Your task to perform on an android device: open a bookmark in the chrome app Image 0: 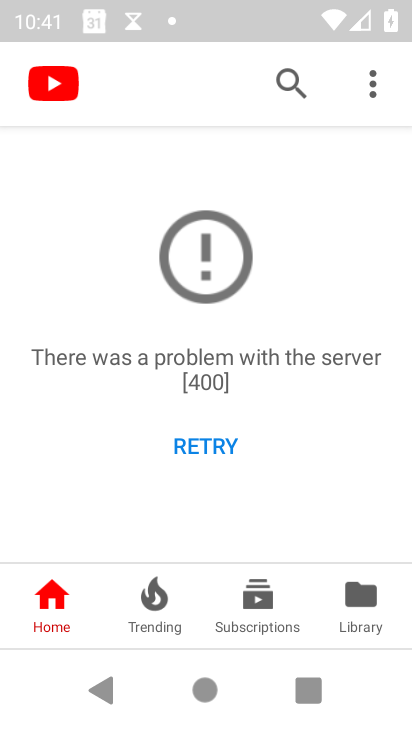
Step 0: press home button
Your task to perform on an android device: open a bookmark in the chrome app Image 1: 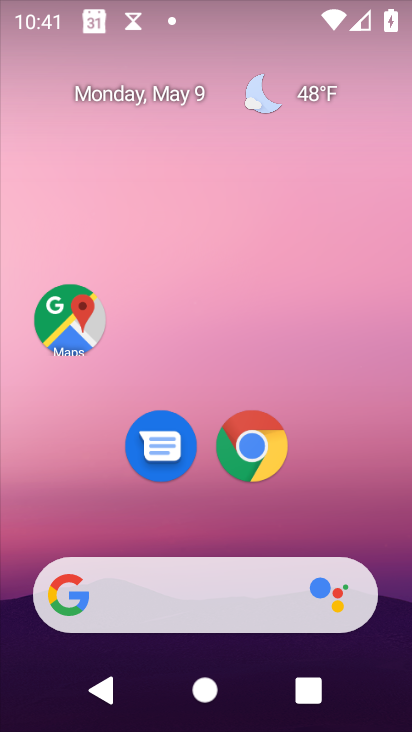
Step 1: click (245, 456)
Your task to perform on an android device: open a bookmark in the chrome app Image 2: 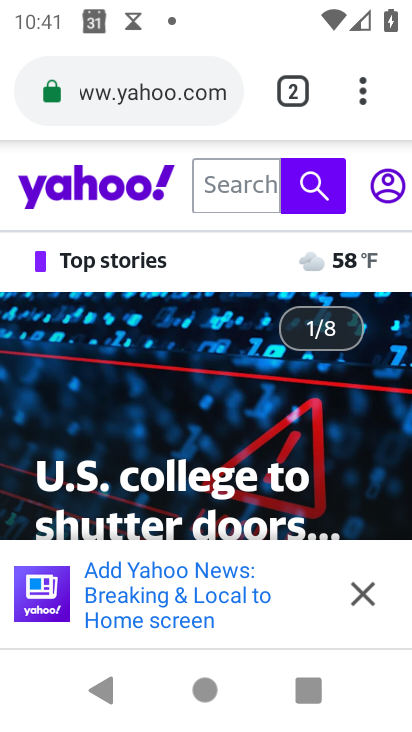
Step 2: click (361, 91)
Your task to perform on an android device: open a bookmark in the chrome app Image 3: 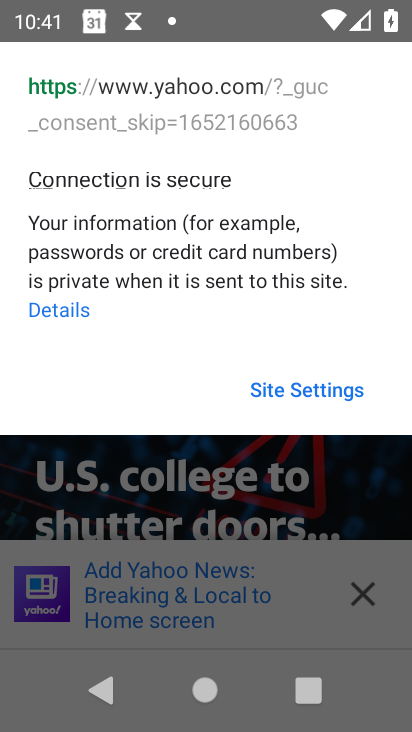
Step 3: click (256, 635)
Your task to perform on an android device: open a bookmark in the chrome app Image 4: 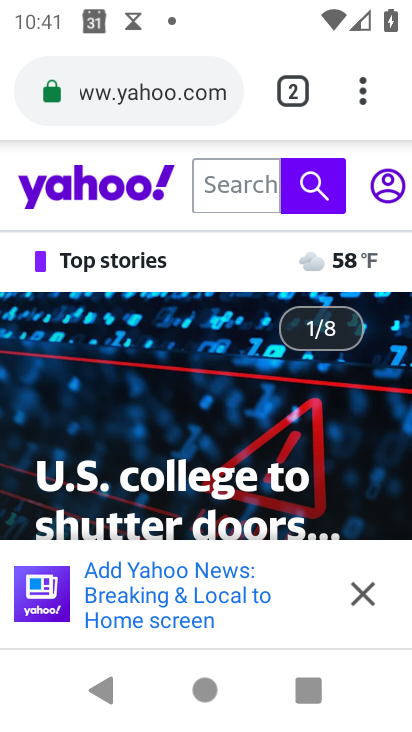
Step 4: click (364, 78)
Your task to perform on an android device: open a bookmark in the chrome app Image 5: 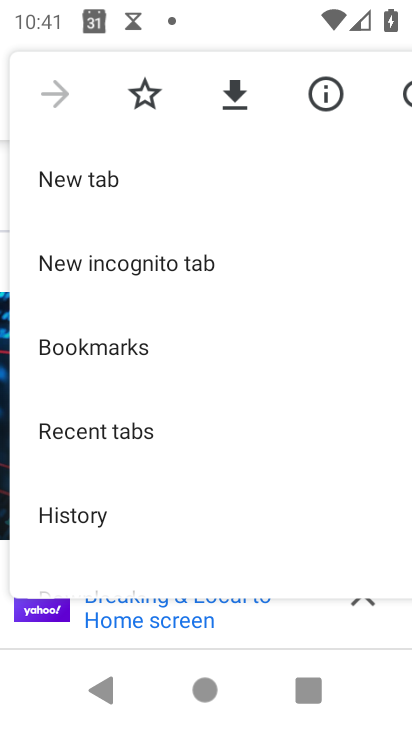
Step 5: click (108, 348)
Your task to perform on an android device: open a bookmark in the chrome app Image 6: 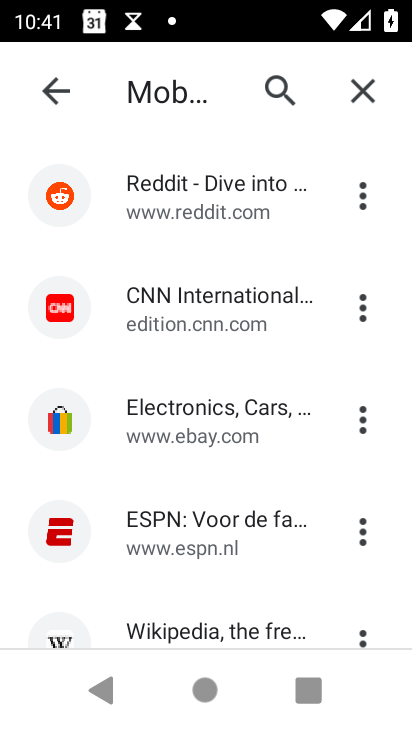
Step 6: click (159, 316)
Your task to perform on an android device: open a bookmark in the chrome app Image 7: 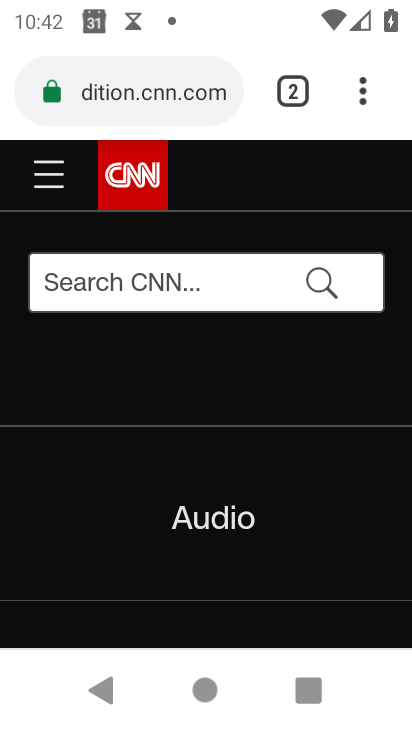
Step 7: task complete